Your task to perform on an android device: Go to sound settings Image 0: 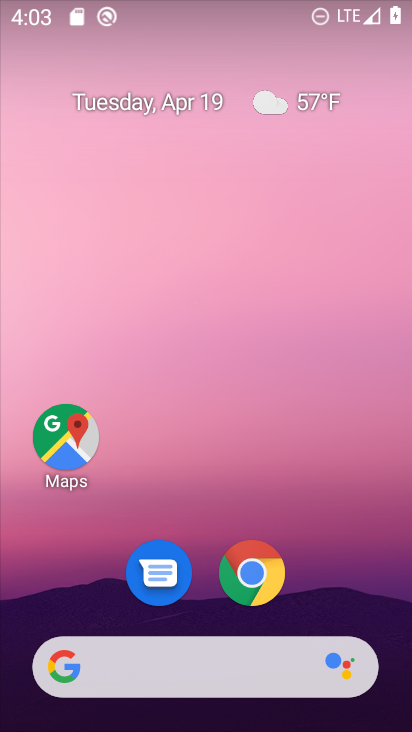
Step 0: drag from (344, 564) to (363, 1)
Your task to perform on an android device: Go to sound settings Image 1: 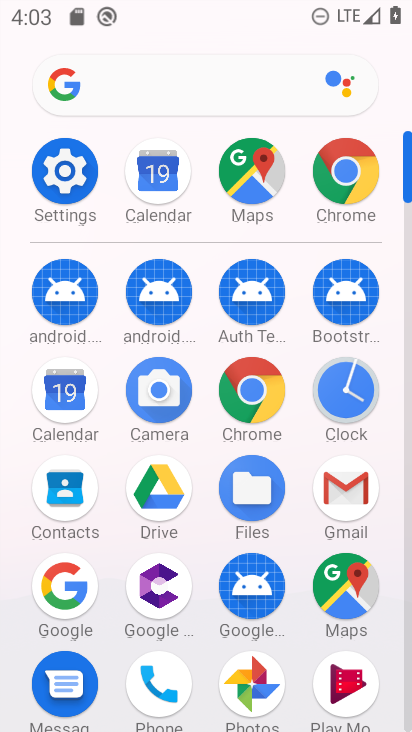
Step 1: click (68, 168)
Your task to perform on an android device: Go to sound settings Image 2: 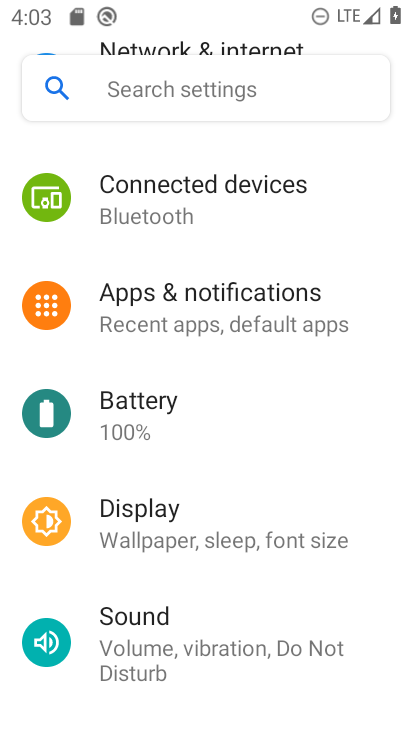
Step 2: click (129, 647)
Your task to perform on an android device: Go to sound settings Image 3: 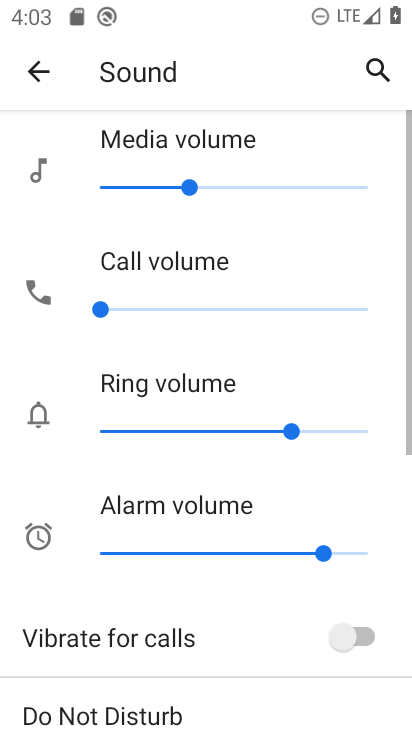
Step 3: task complete